Your task to perform on an android device: clear history in the chrome app Image 0: 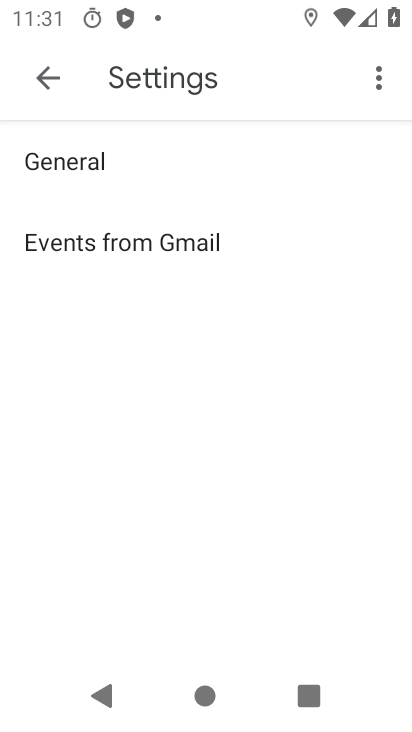
Step 0: drag from (82, 584) to (183, 52)
Your task to perform on an android device: clear history in the chrome app Image 1: 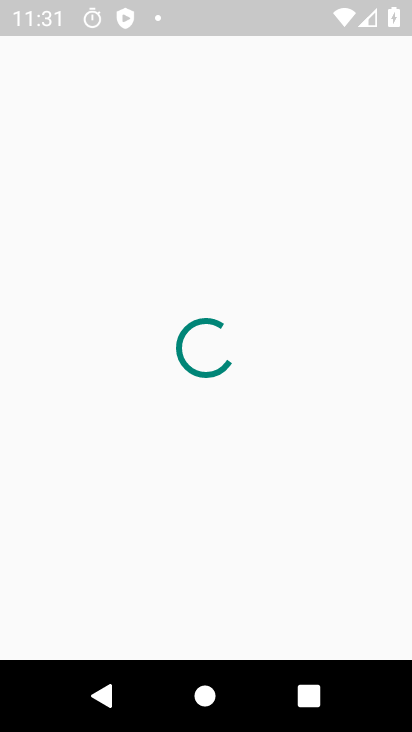
Step 1: press home button
Your task to perform on an android device: clear history in the chrome app Image 2: 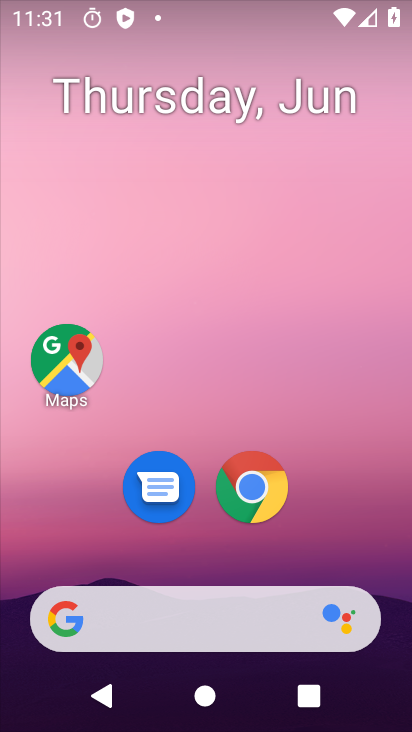
Step 2: click (272, 489)
Your task to perform on an android device: clear history in the chrome app Image 3: 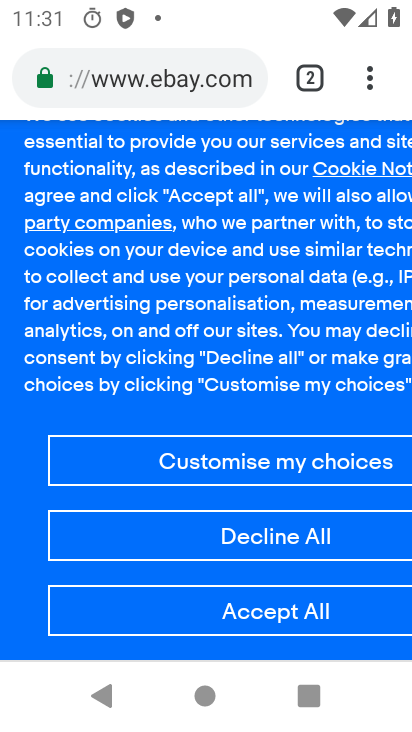
Step 3: drag from (374, 79) to (244, 433)
Your task to perform on an android device: clear history in the chrome app Image 4: 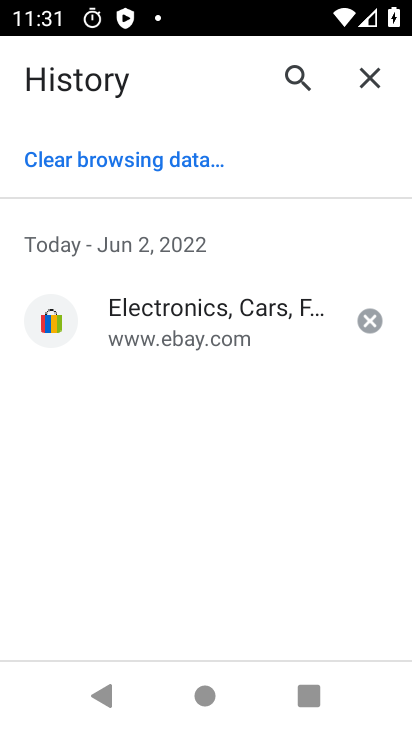
Step 4: click (188, 155)
Your task to perform on an android device: clear history in the chrome app Image 5: 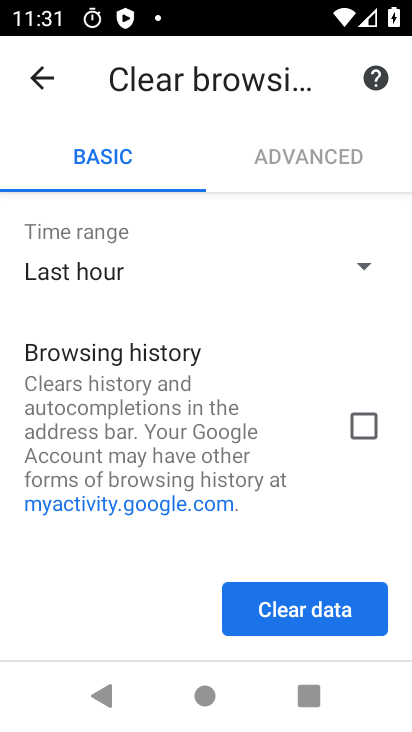
Step 5: click (361, 418)
Your task to perform on an android device: clear history in the chrome app Image 6: 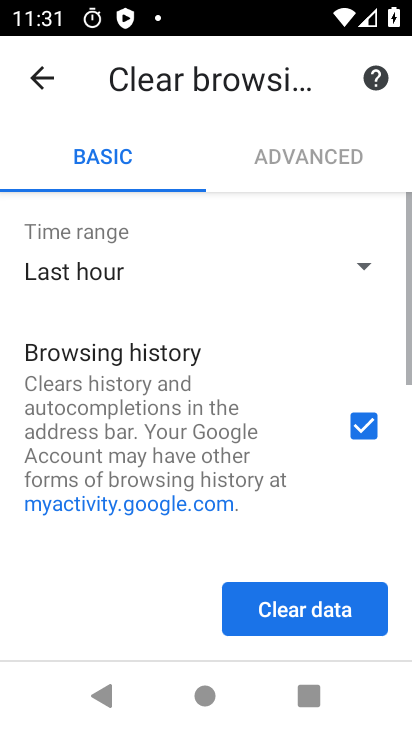
Step 6: drag from (247, 503) to (345, 0)
Your task to perform on an android device: clear history in the chrome app Image 7: 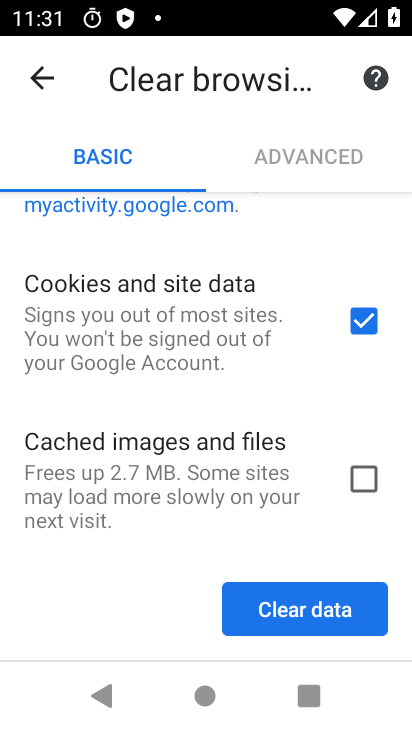
Step 7: click (361, 470)
Your task to perform on an android device: clear history in the chrome app Image 8: 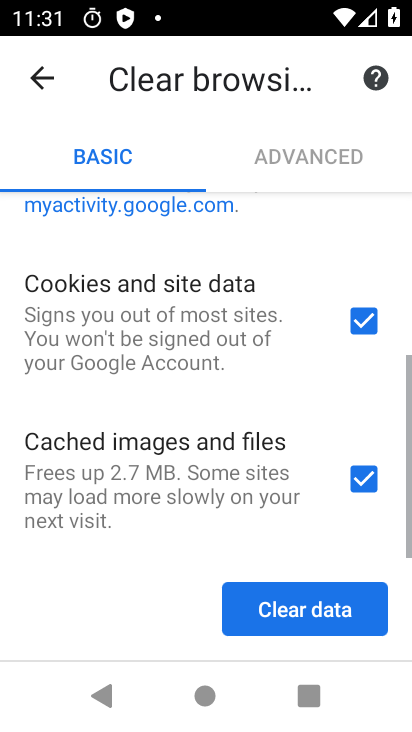
Step 8: click (340, 611)
Your task to perform on an android device: clear history in the chrome app Image 9: 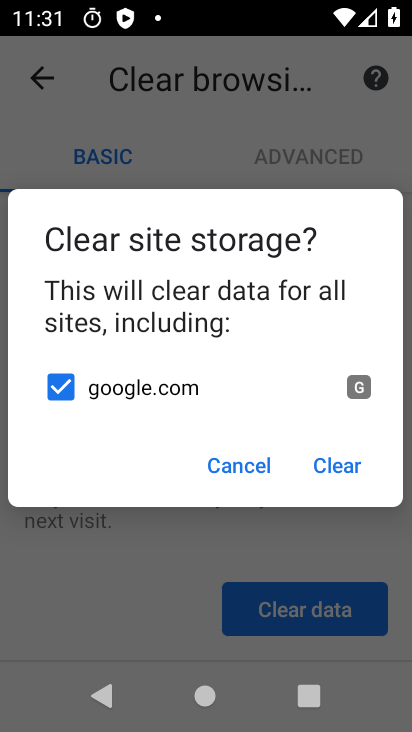
Step 9: click (353, 459)
Your task to perform on an android device: clear history in the chrome app Image 10: 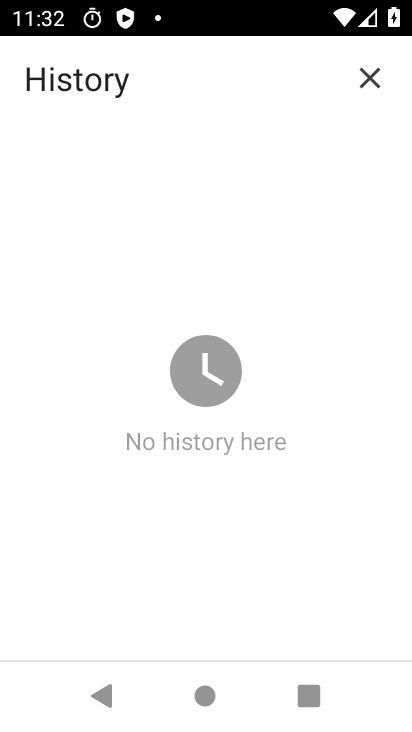
Step 10: task complete